Your task to perform on an android device: What's a good restaurant in Atlanta? Image 0: 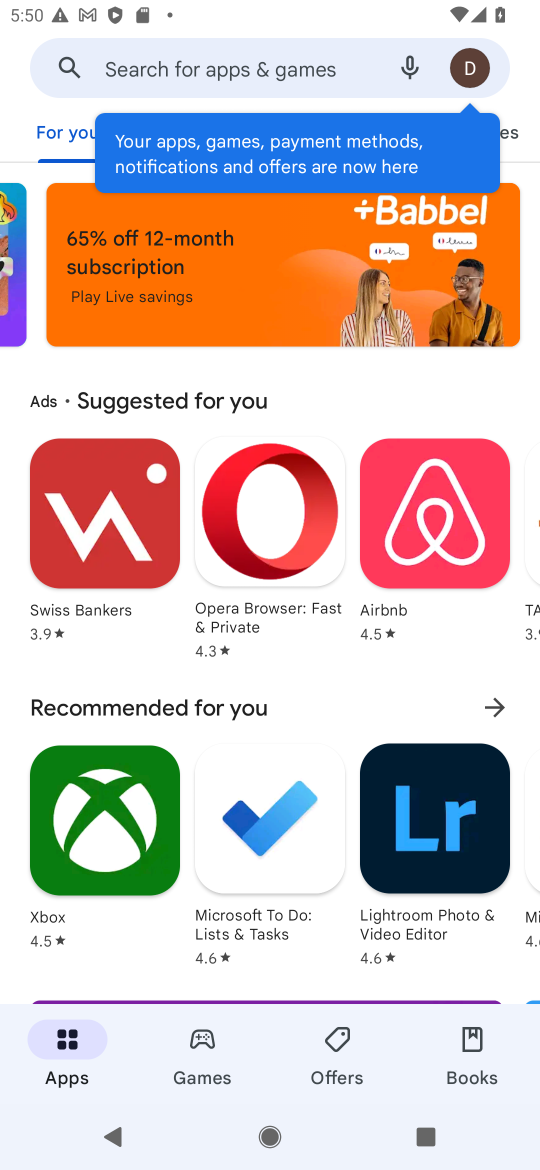
Step 0: press home button
Your task to perform on an android device: What's a good restaurant in Atlanta? Image 1: 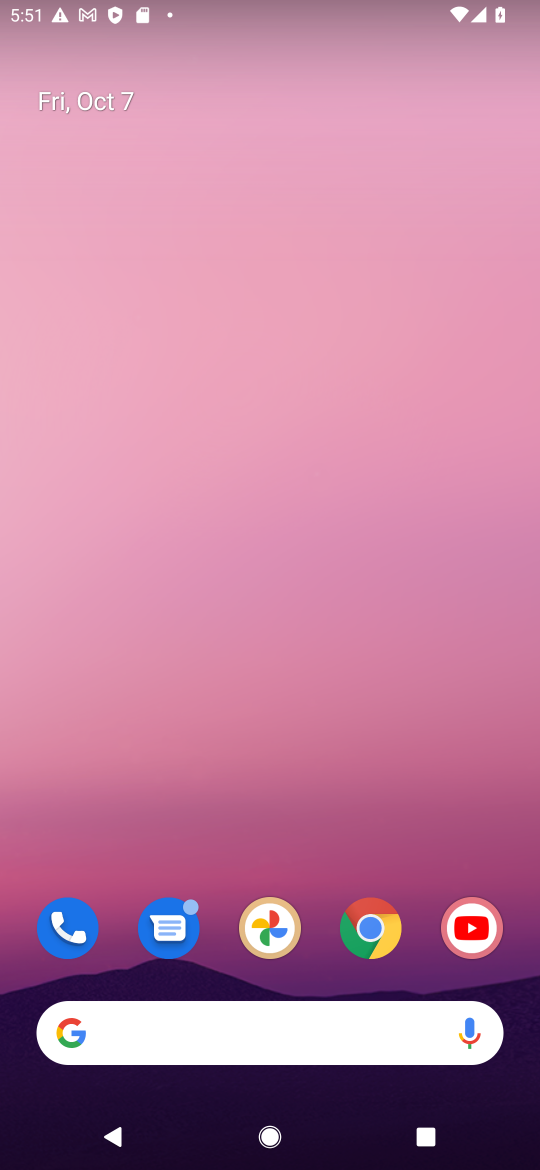
Step 1: drag from (300, 783) to (275, 382)
Your task to perform on an android device: What's a good restaurant in Atlanta? Image 2: 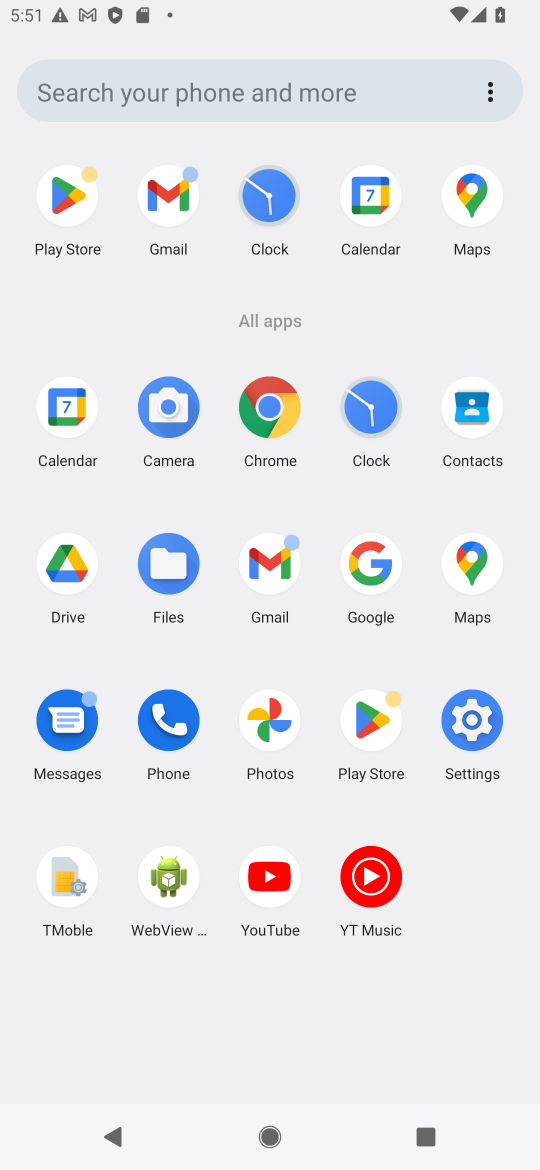
Step 2: click (384, 591)
Your task to perform on an android device: What's a good restaurant in Atlanta? Image 3: 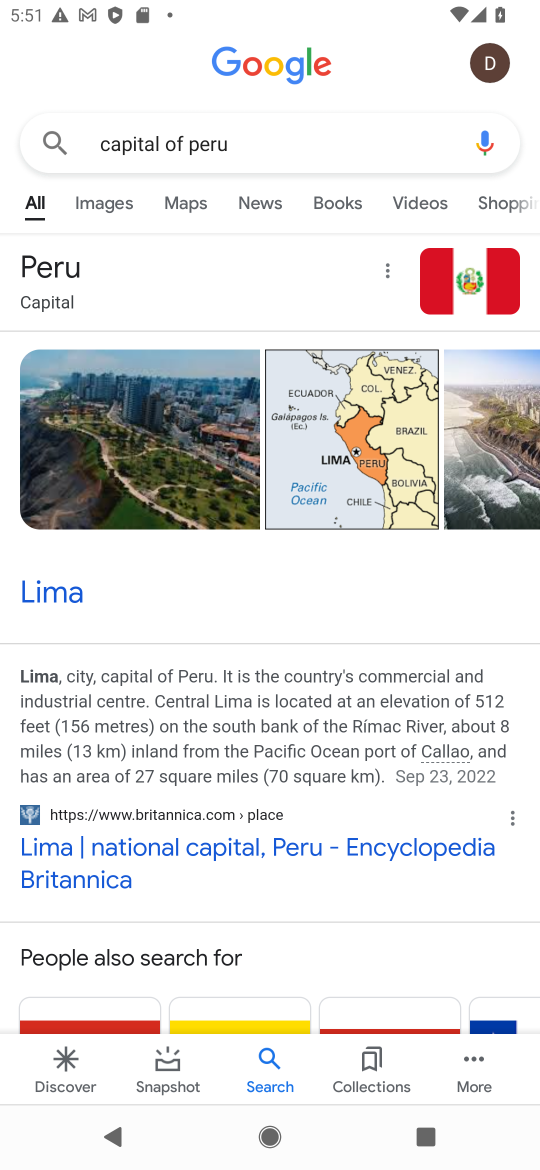
Step 3: click (384, 142)
Your task to perform on an android device: What's a good restaurant in Atlanta? Image 4: 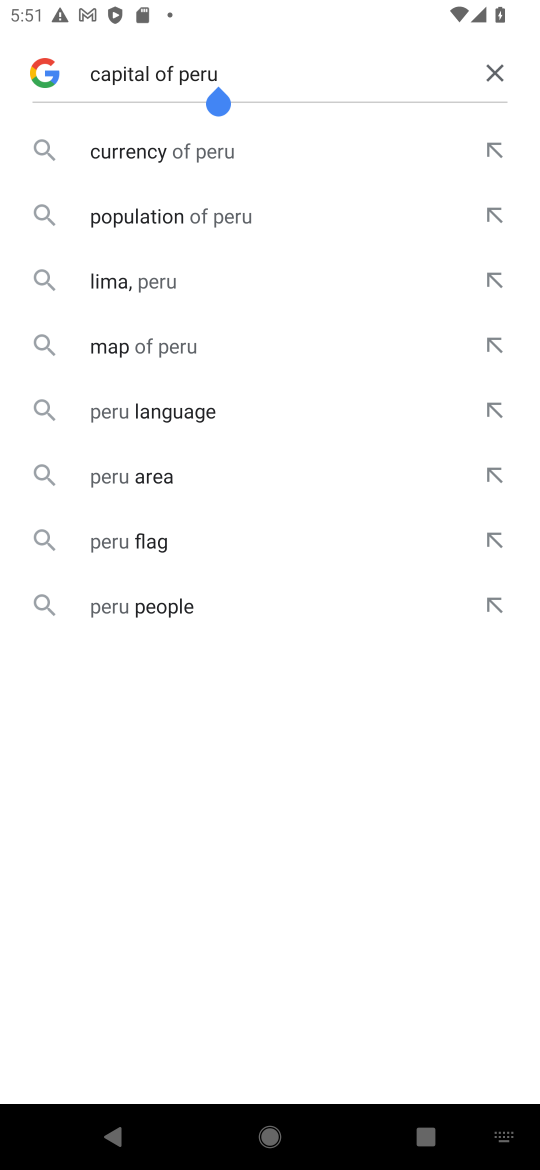
Step 4: click (492, 78)
Your task to perform on an android device: What's a good restaurant in Atlanta? Image 5: 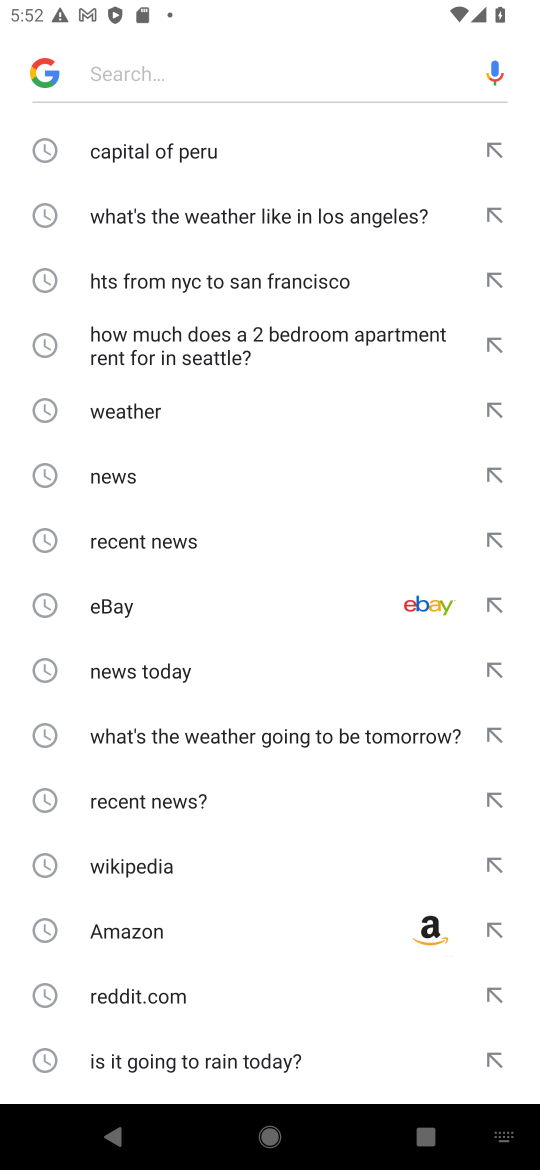
Step 5: type "What's a good restaurant in Atlanta?"
Your task to perform on an android device: What's a good restaurant in Atlanta? Image 6: 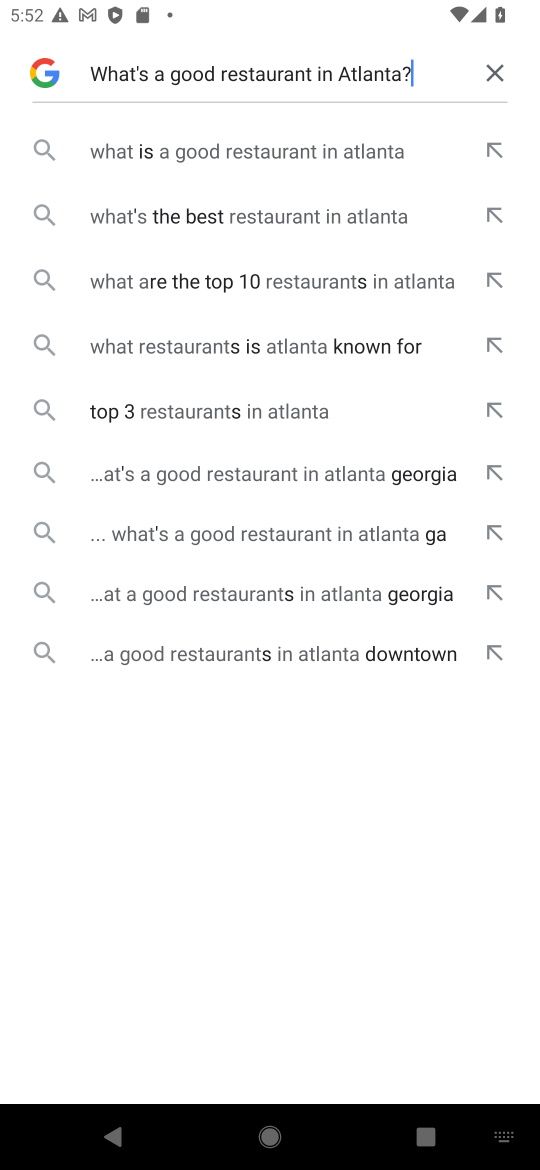
Step 6: click (339, 148)
Your task to perform on an android device: What's a good restaurant in Atlanta? Image 7: 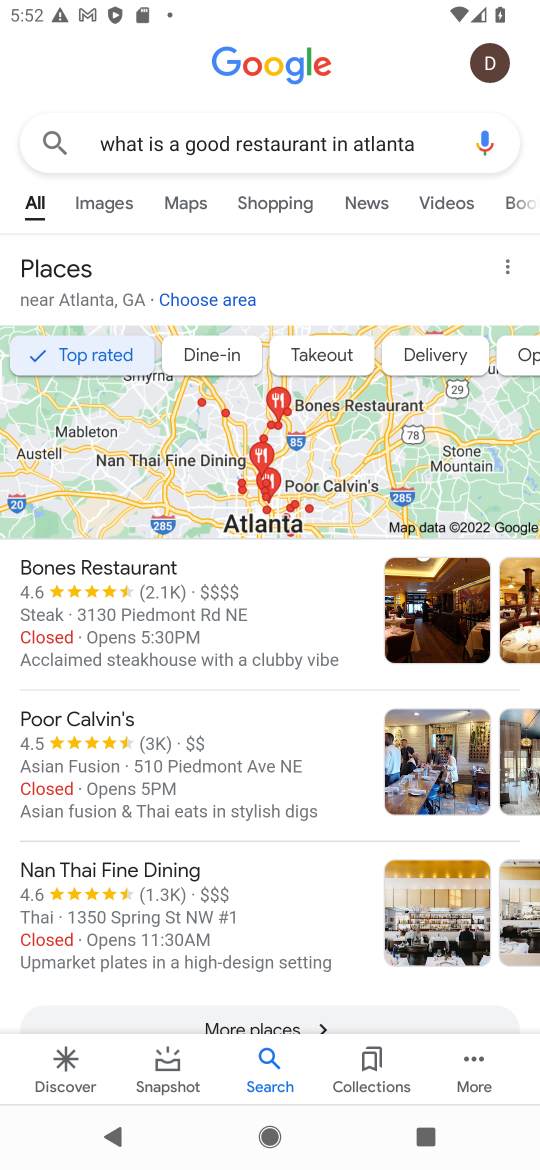
Step 7: task complete